Your task to perform on an android device: Open internet settings Image 0: 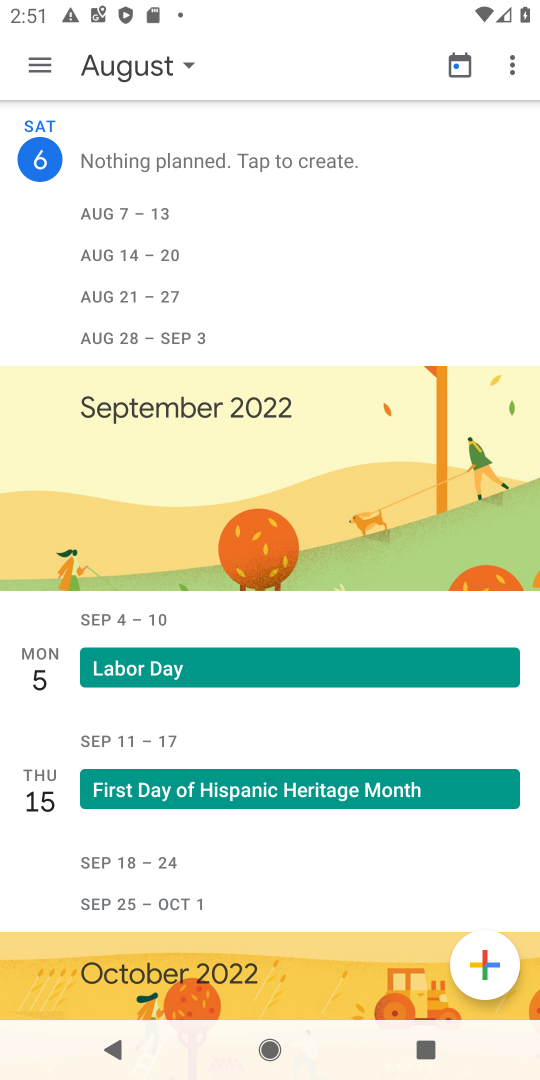
Step 0: press back button
Your task to perform on an android device: Open internet settings Image 1: 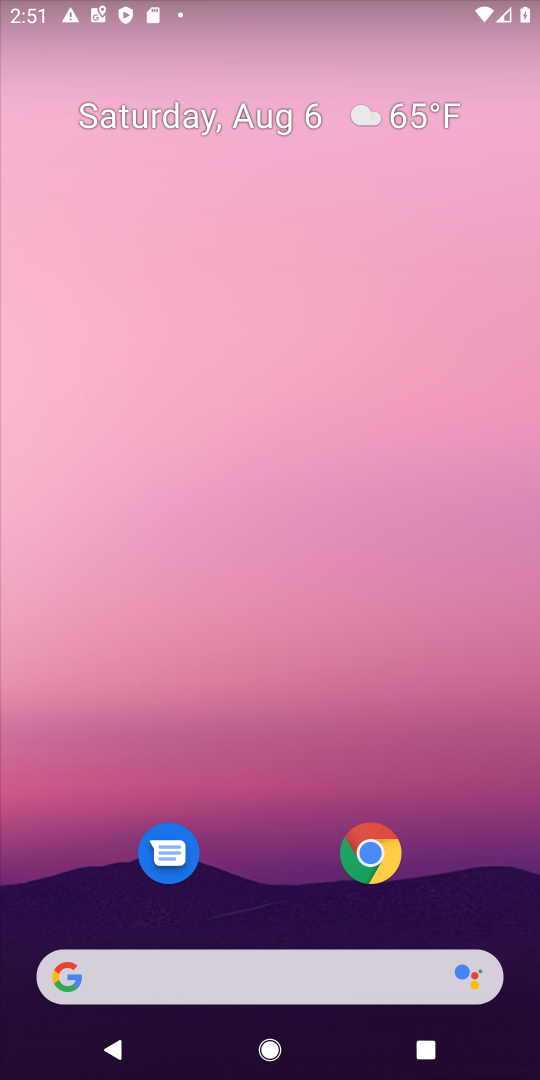
Step 1: drag from (323, 793) to (323, 17)
Your task to perform on an android device: Open internet settings Image 2: 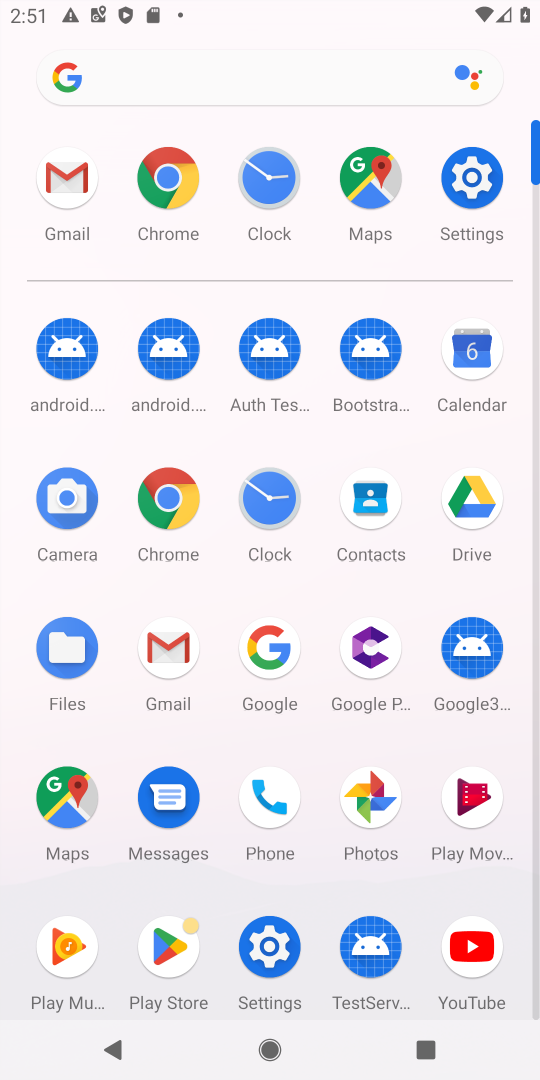
Step 2: click (478, 166)
Your task to perform on an android device: Open internet settings Image 3: 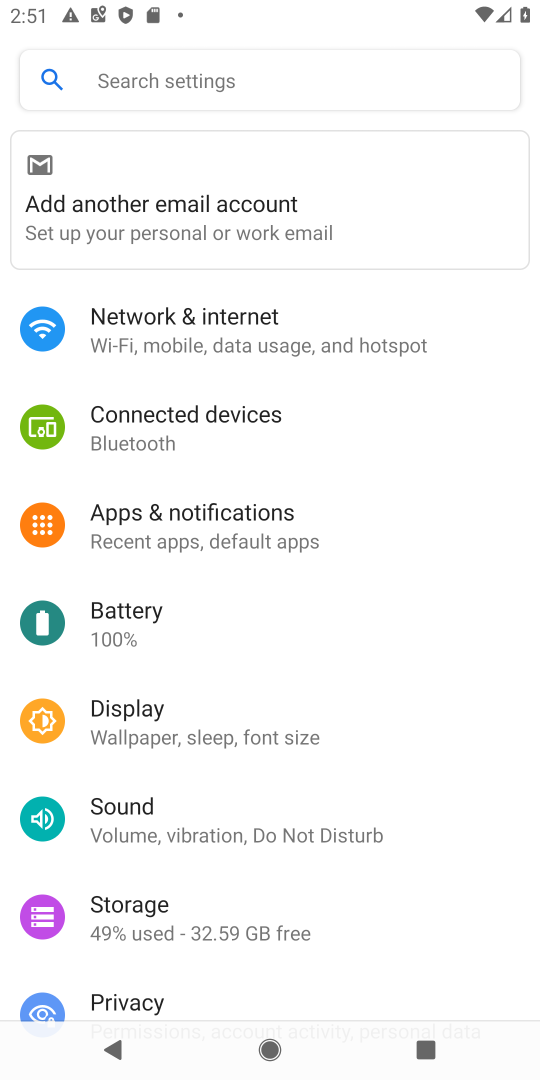
Step 3: click (250, 346)
Your task to perform on an android device: Open internet settings Image 4: 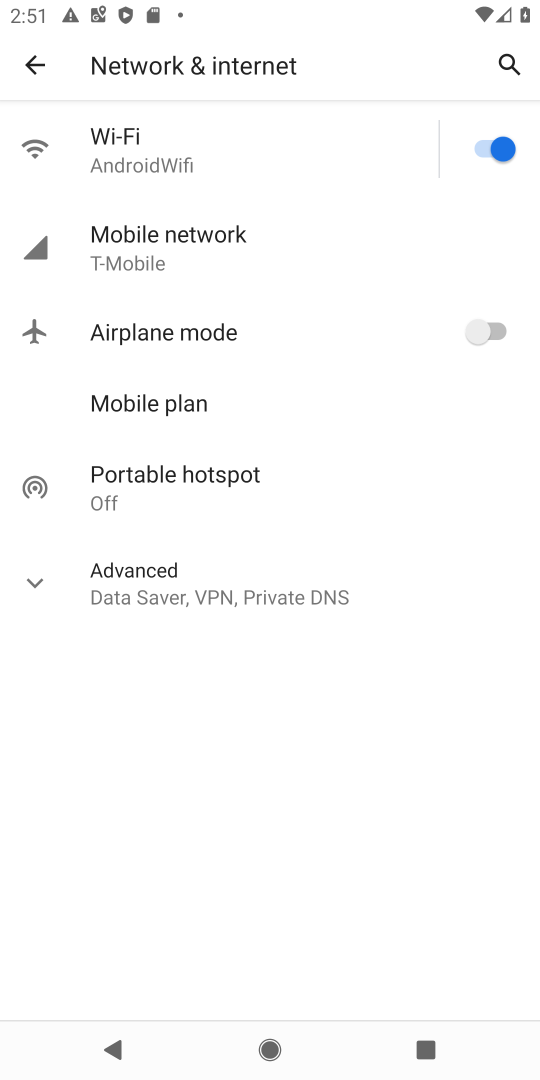
Step 4: task complete